Your task to perform on an android device: Open privacy settings Image 0: 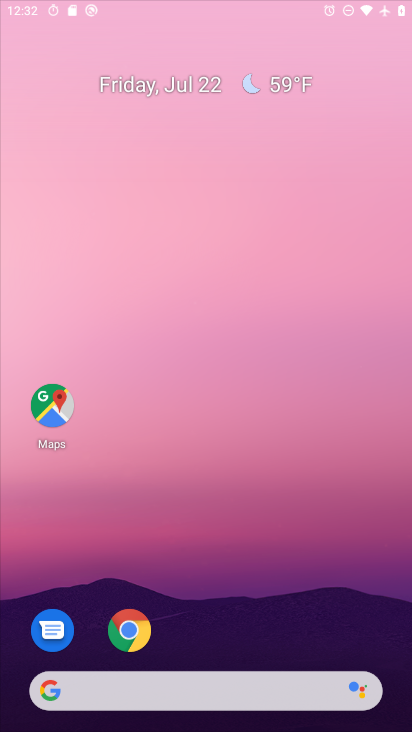
Step 0: press home button
Your task to perform on an android device: Open privacy settings Image 1: 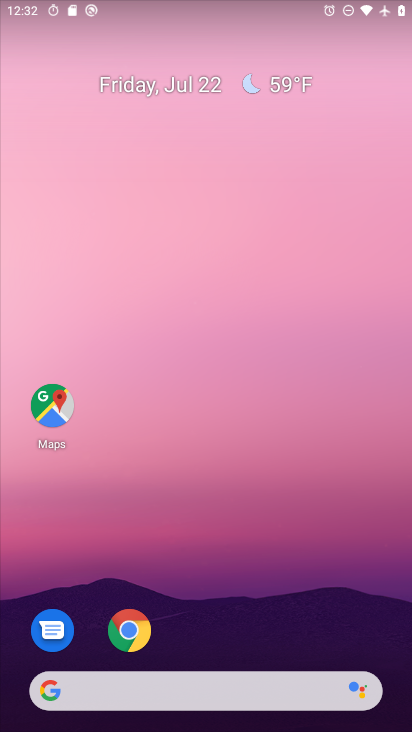
Step 1: drag from (267, 588) to (276, 133)
Your task to perform on an android device: Open privacy settings Image 2: 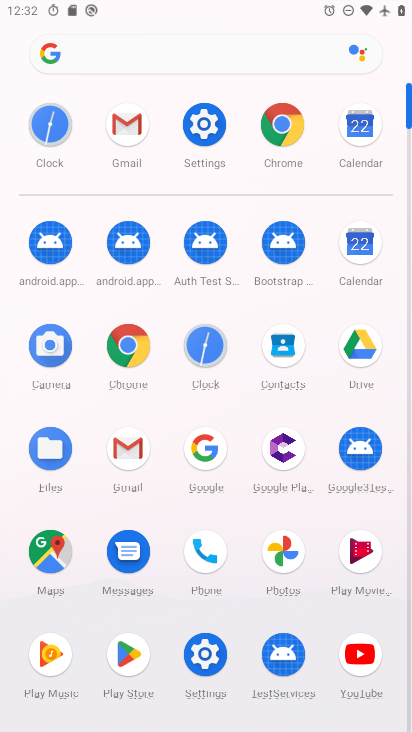
Step 2: click (200, 109)
Your task to perform on an android device: Open privacy settings Image 3: 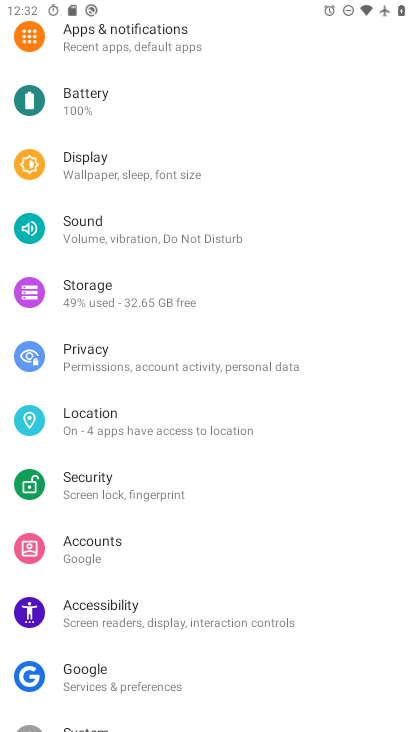
Step 3: click (119, 365)
Your task to perform on an android device: Open privacy settings Image 4: 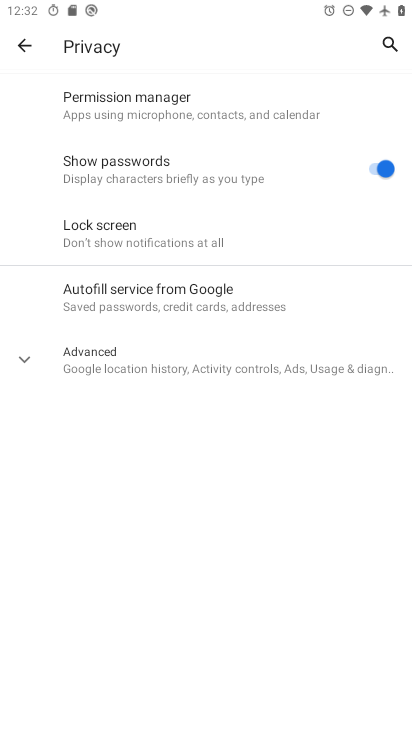
Step 4: task complete